Your task to perform on an android device: change the clock display to digital Image 0: 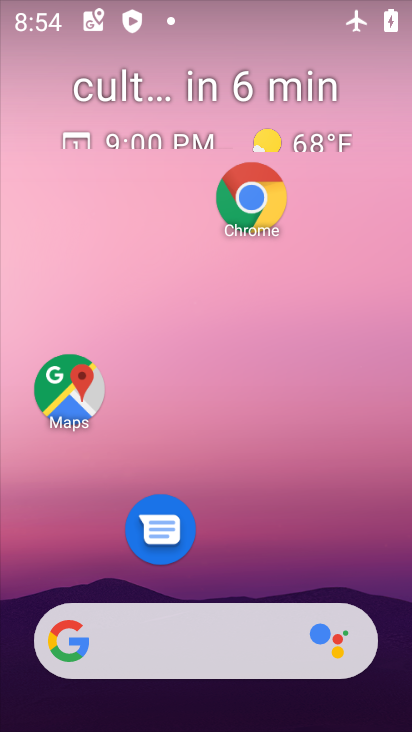
Step 0: drag from (226, 566) to (170, 68)
Your task to perform on an android device: change the clock display to digital Image 1: 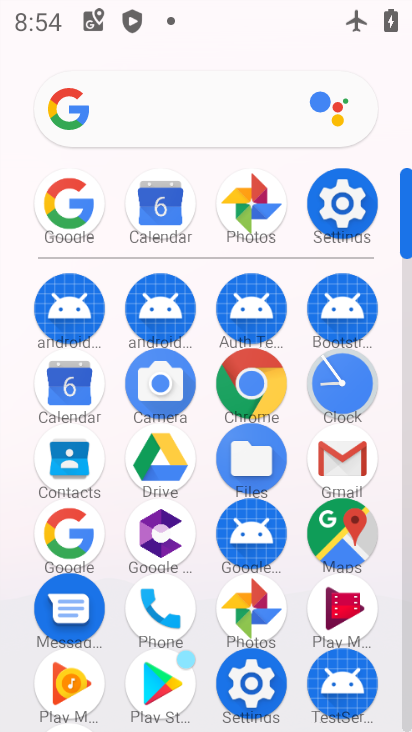
Step 1: click (323, 376)
Your task to perform on an android device: change the clock display to digital Image 2: 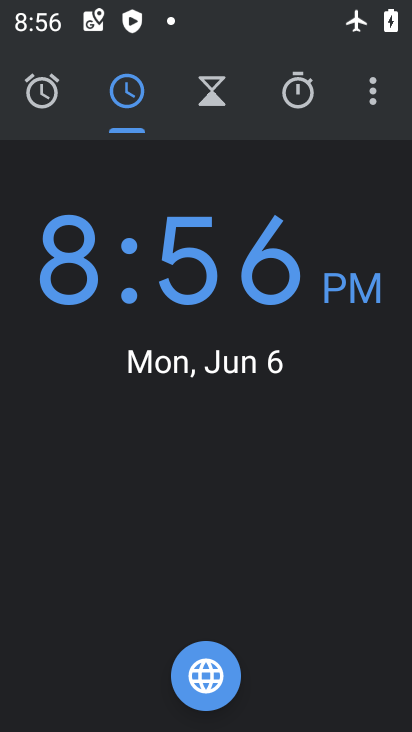
Step 2: click (360, 96)
Your task to perform on an android device: change the clock display to digital Image 3: 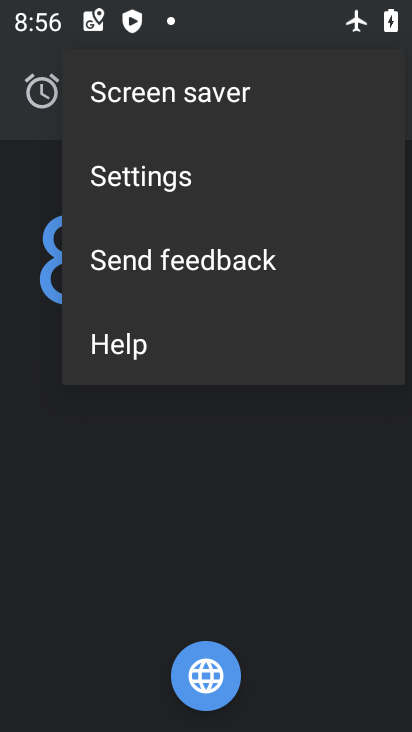
Step 3: click (175, 174)
Your task to perform on an android device: change the clock display to digital Image 4: 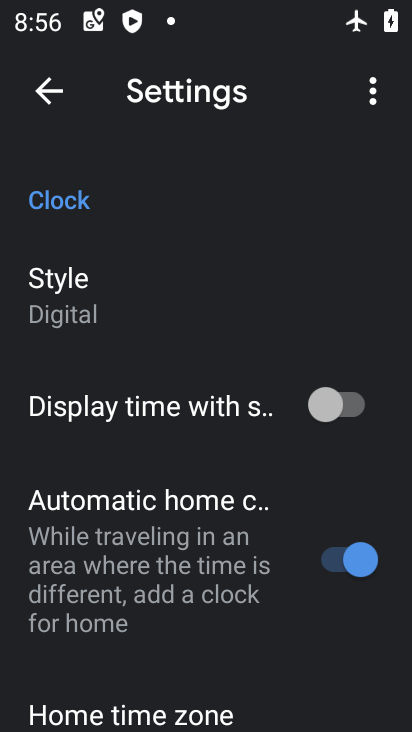
Step 4: task complete